Your task to perform on an android device: Go to internet settings Image 0: 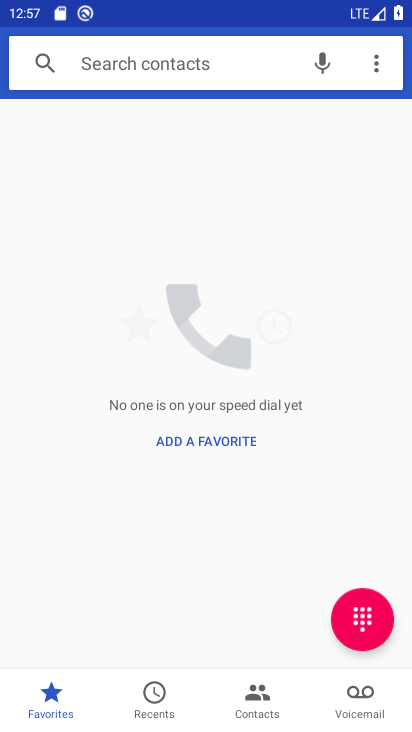
Step 0: press home button
Your task to perform on an android device: Go to internet settings Image 1: 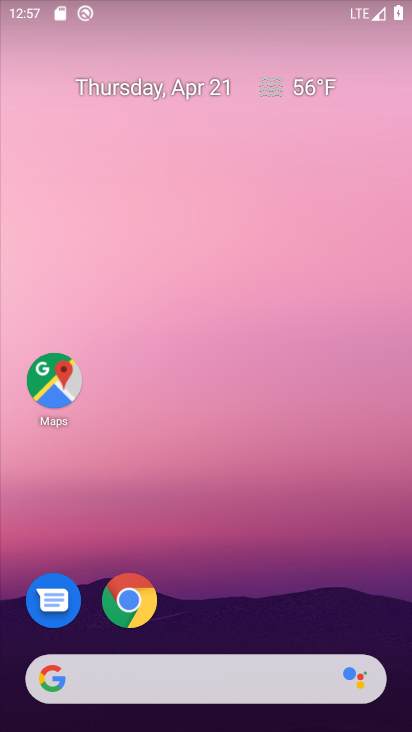
Step 1: drag from (329, 580) to (393, 62)
Your task to perform on an android device: Go to internet settings Image 2: 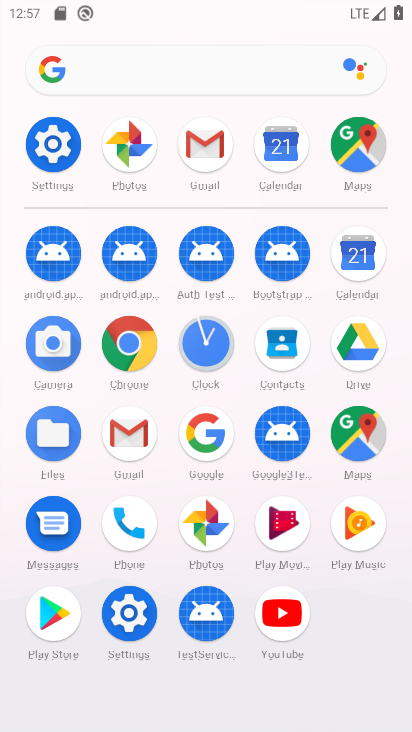
Step 2: click (55, 144)
Your task to perform on an android device: Go to internet settings Image 3: 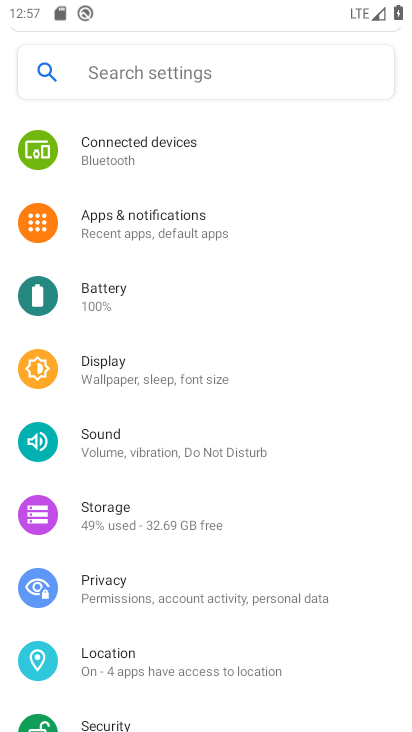
Step 3: drag from (230, 173) to (230, 480)
Your task to perform on an android device: Go to internet settings Image 4: 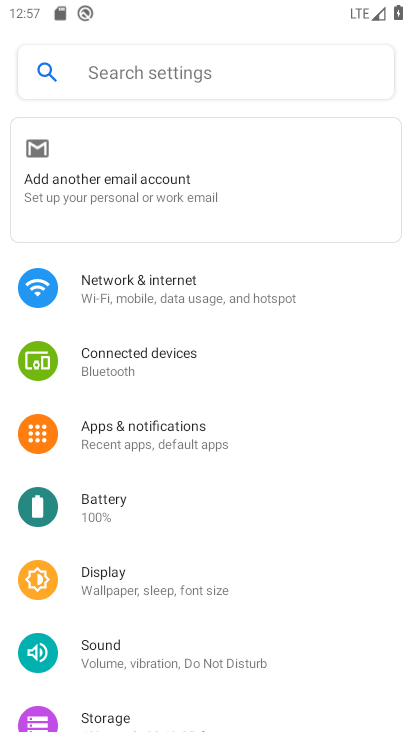
Step 4: click (238, 297)
Your task to perform on an android device: Go to internet settings Image 5: 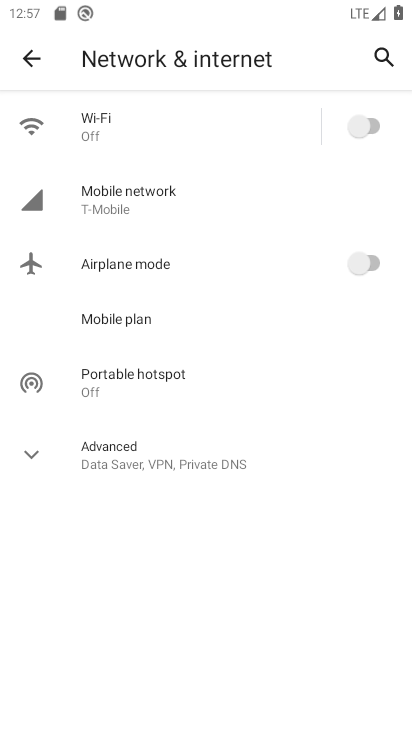
Step 5: task complete